Your task to perform on an android device: Add "alienware area 51" to the cart on ebay.com Image 0: 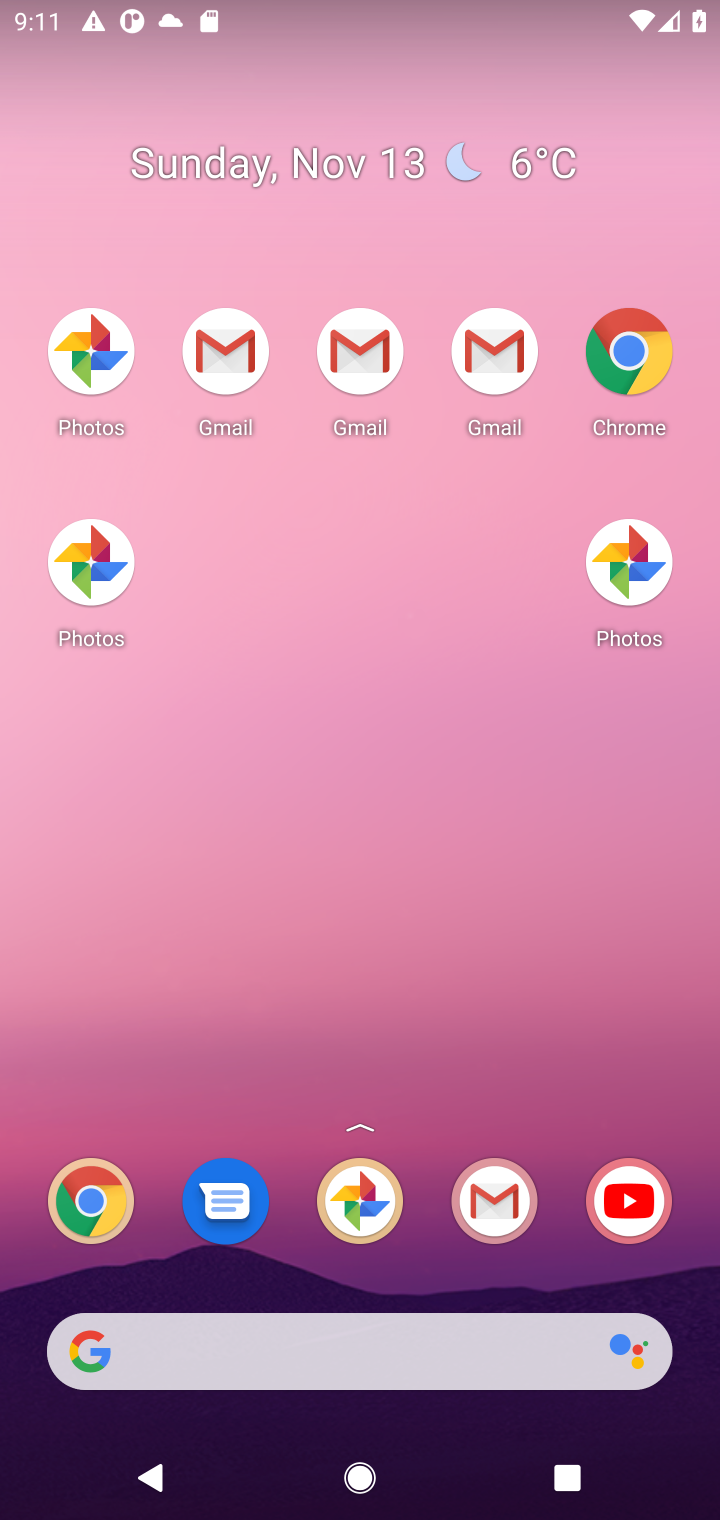
Step 0: drag from (435, 1275) to (396, 190)
Your task to perform on an android device: Add "alienware area 51" to the cart on ebay.com Image 1: 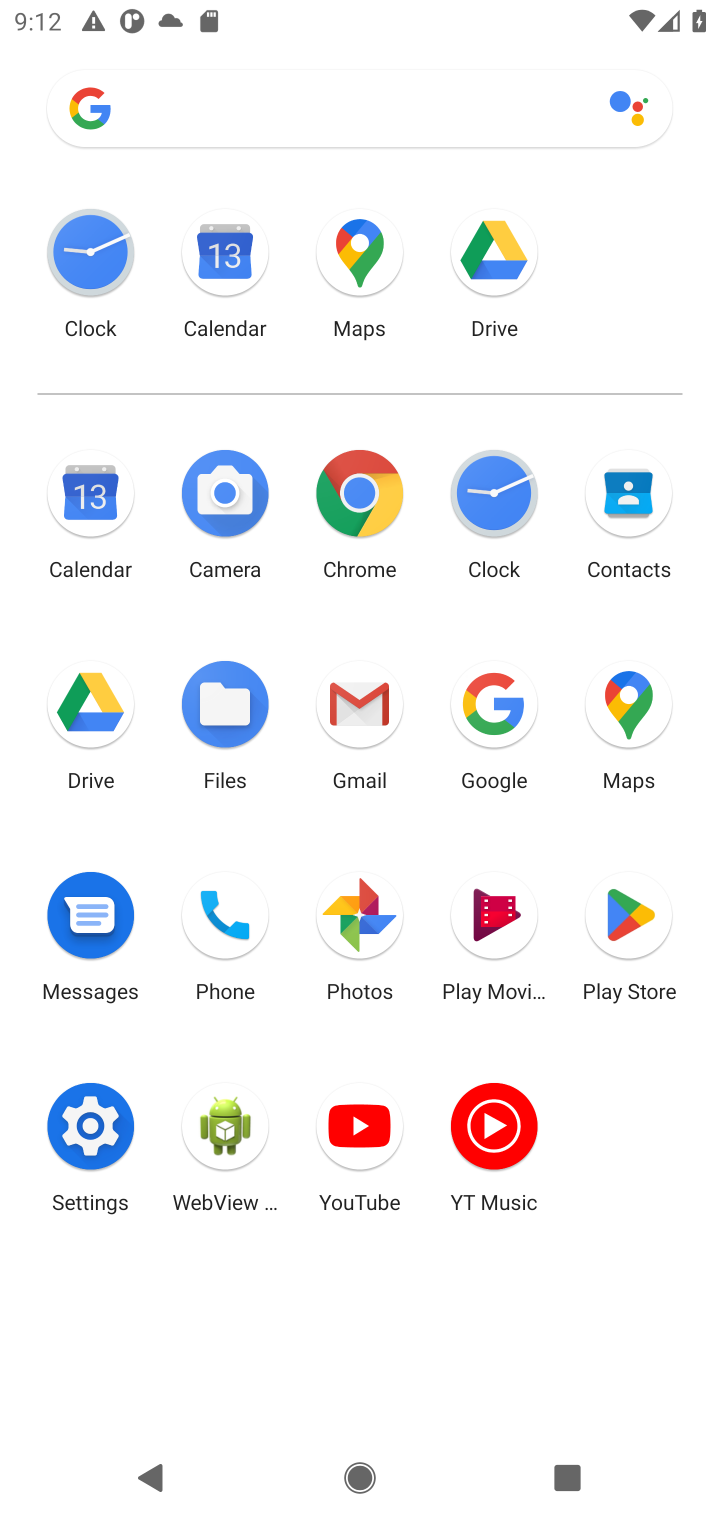
Step 1: click (350, 495)
Your task to perform on an android device: Add "alienware area 51" to the cart on ebay.com Image 2: 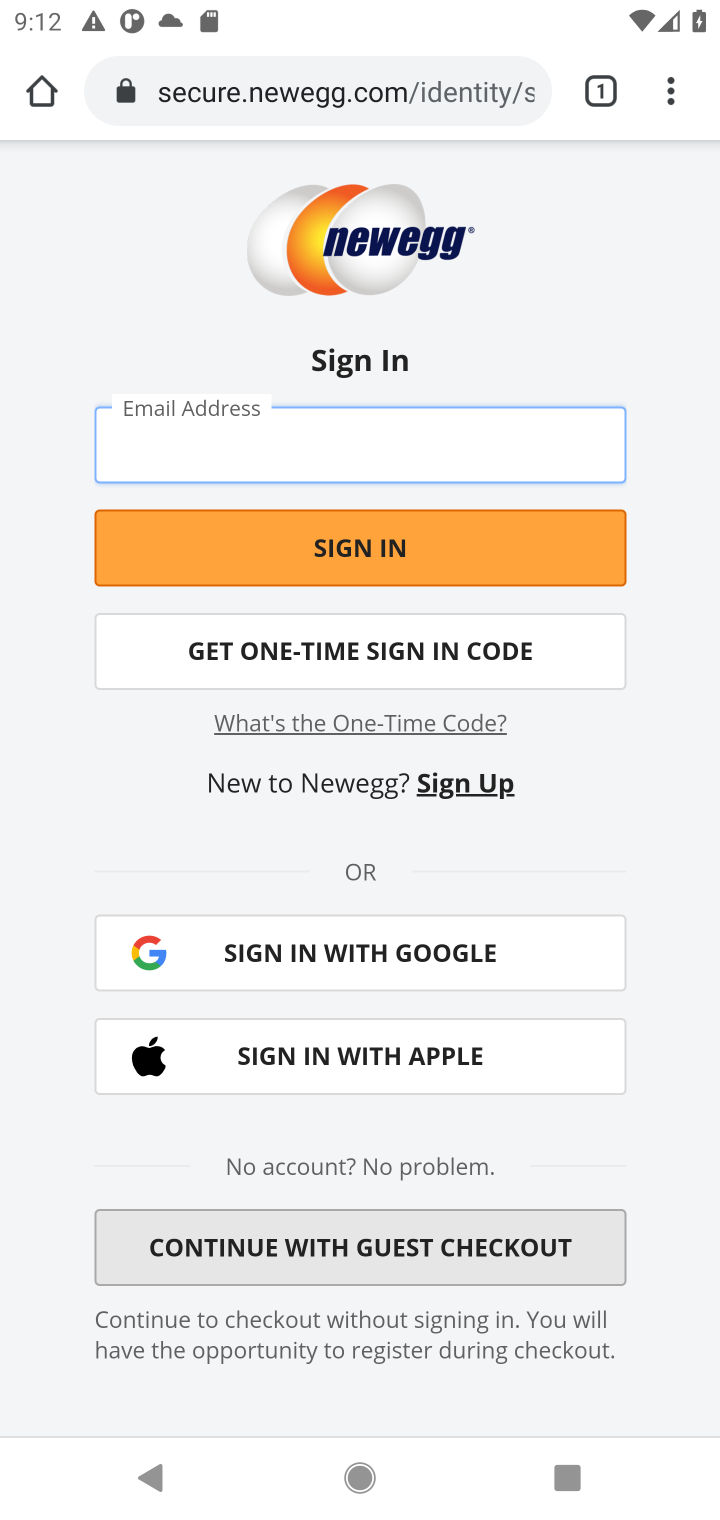
Step 2: click (507, 92)
Your task to perform on an android device: Add "alienware area 51" to the cart on ebay.com Image 3: 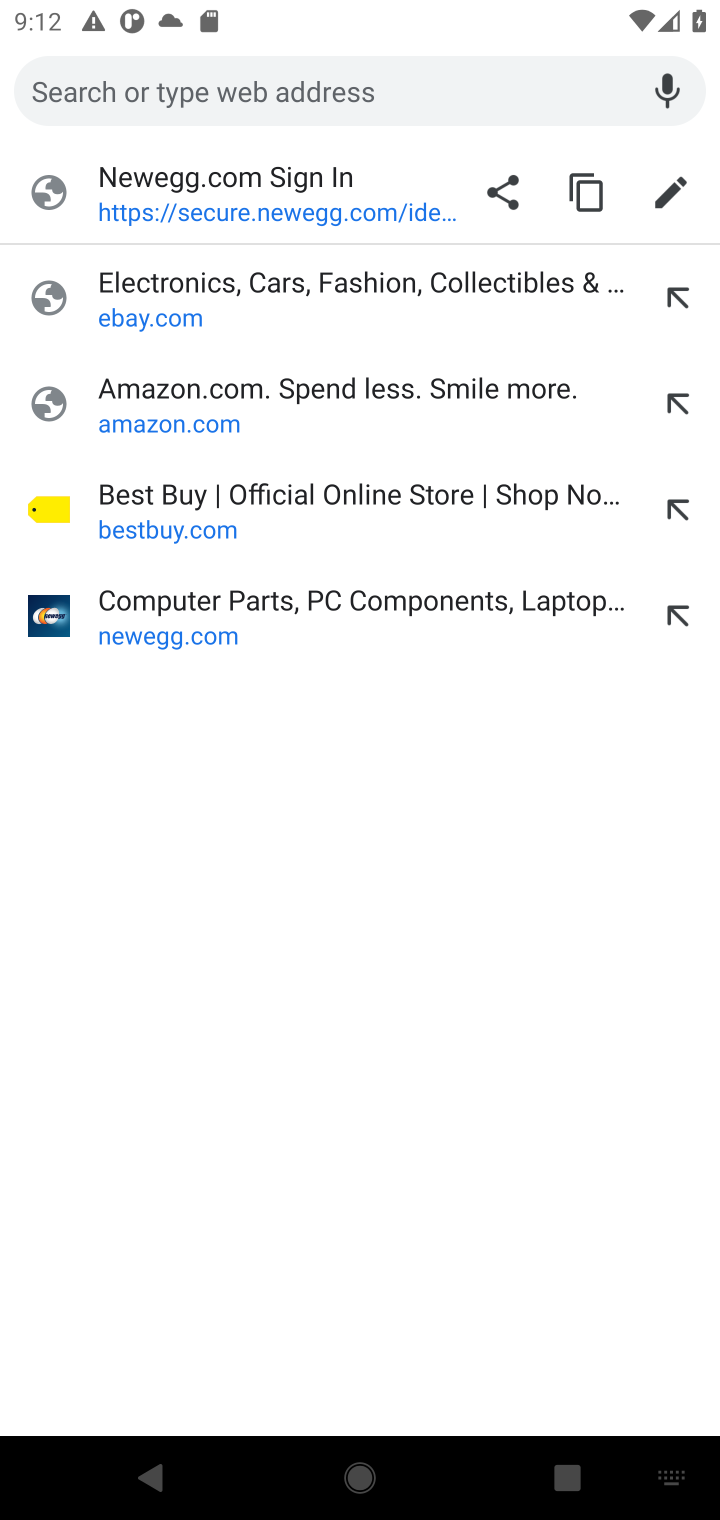
Step 3: type "ebay.com"
Your task to perform on an android device: Add "alienware area 51" to the cart on ebay.com Image 4: 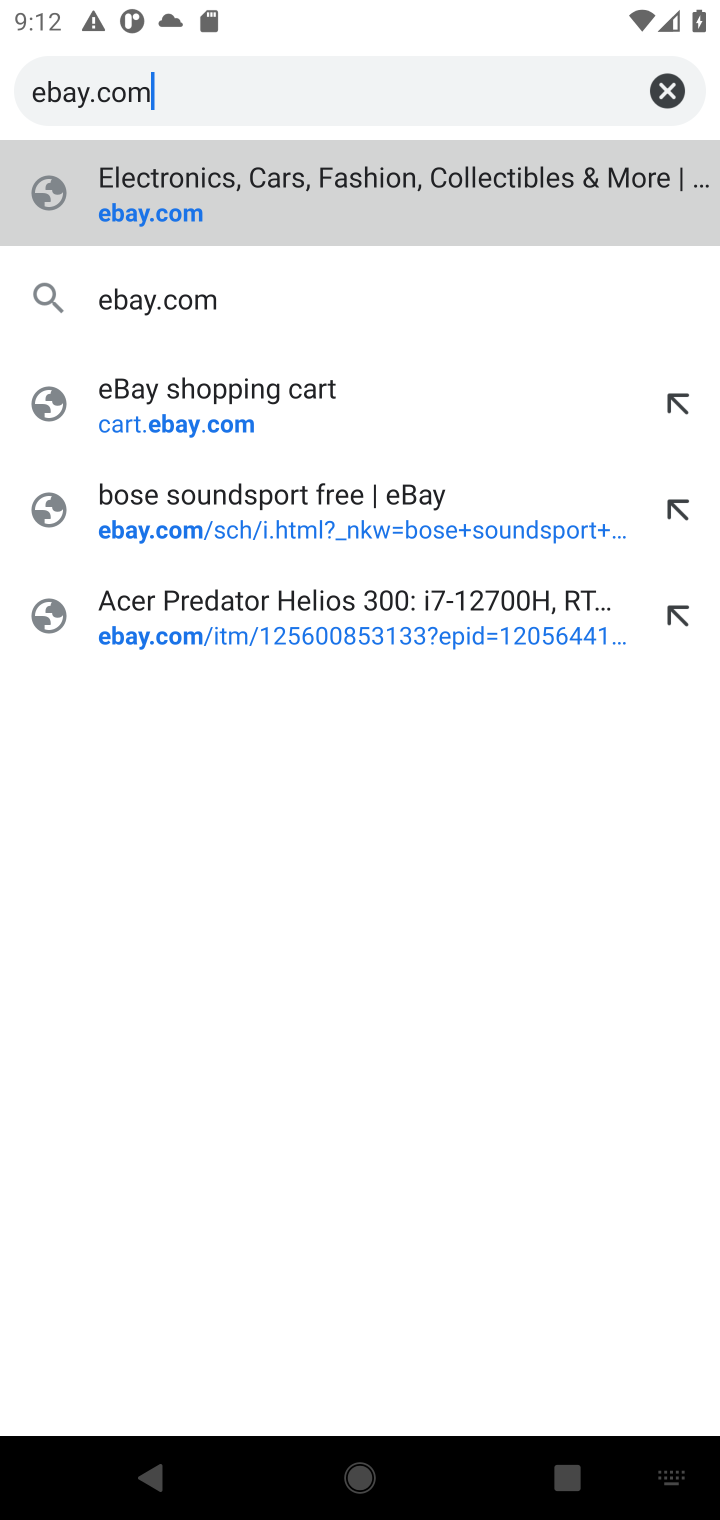
Step 4: press enter
Your task to perform on an android device: Add "alienware area 51" to the cart on ebay.com Image 5: 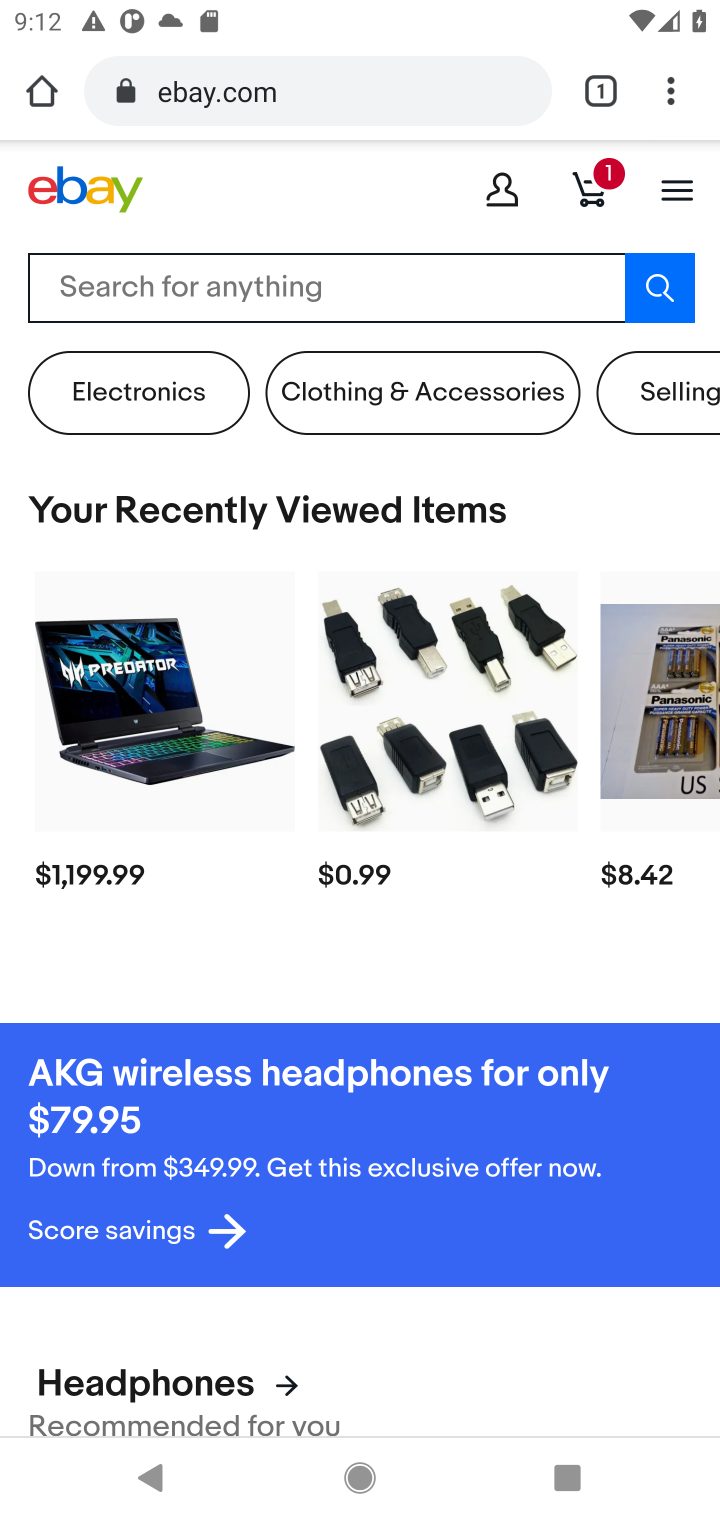
Step 5: click (401, 289)
Your task to perform on an android device: Add "alienware area 51" to the cart on ebay.com Image 6: 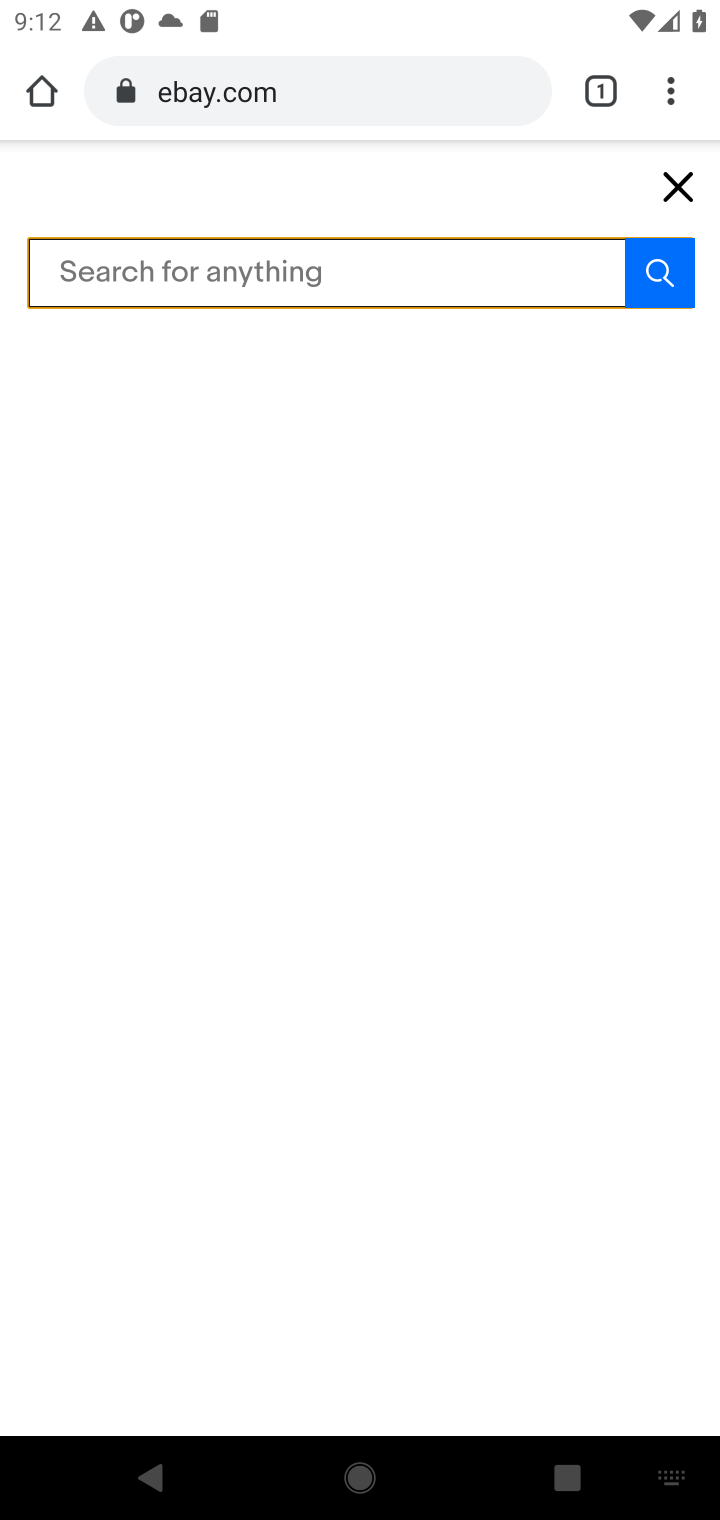
Step 6: type "alienware area 52"
Your task to perform on an android device: Add "alienware area 51" to the cart on ebay.com Image 7: 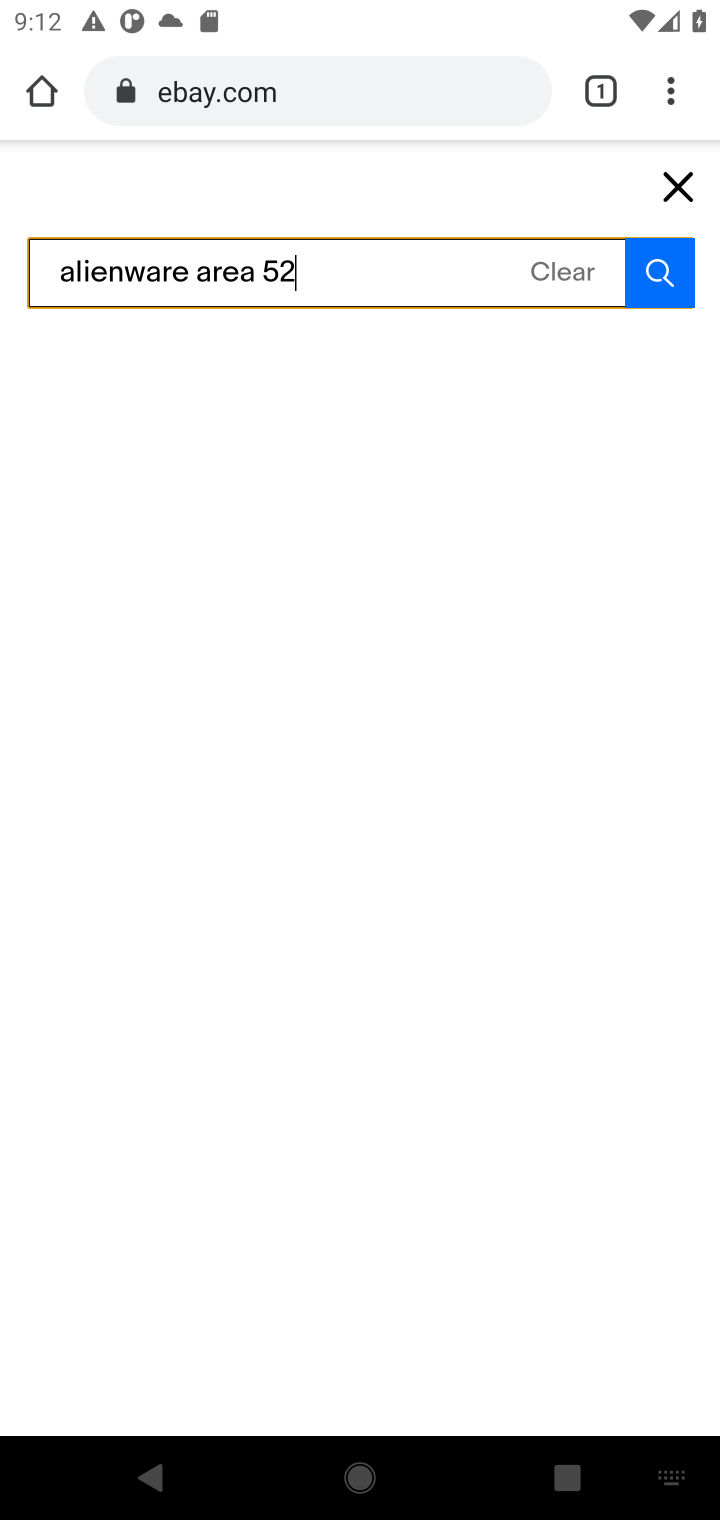
Step 7: click (575, 265)
Your task to perform on an android device: Add "alienware area 51" to the cart on ebay.com Image 8: 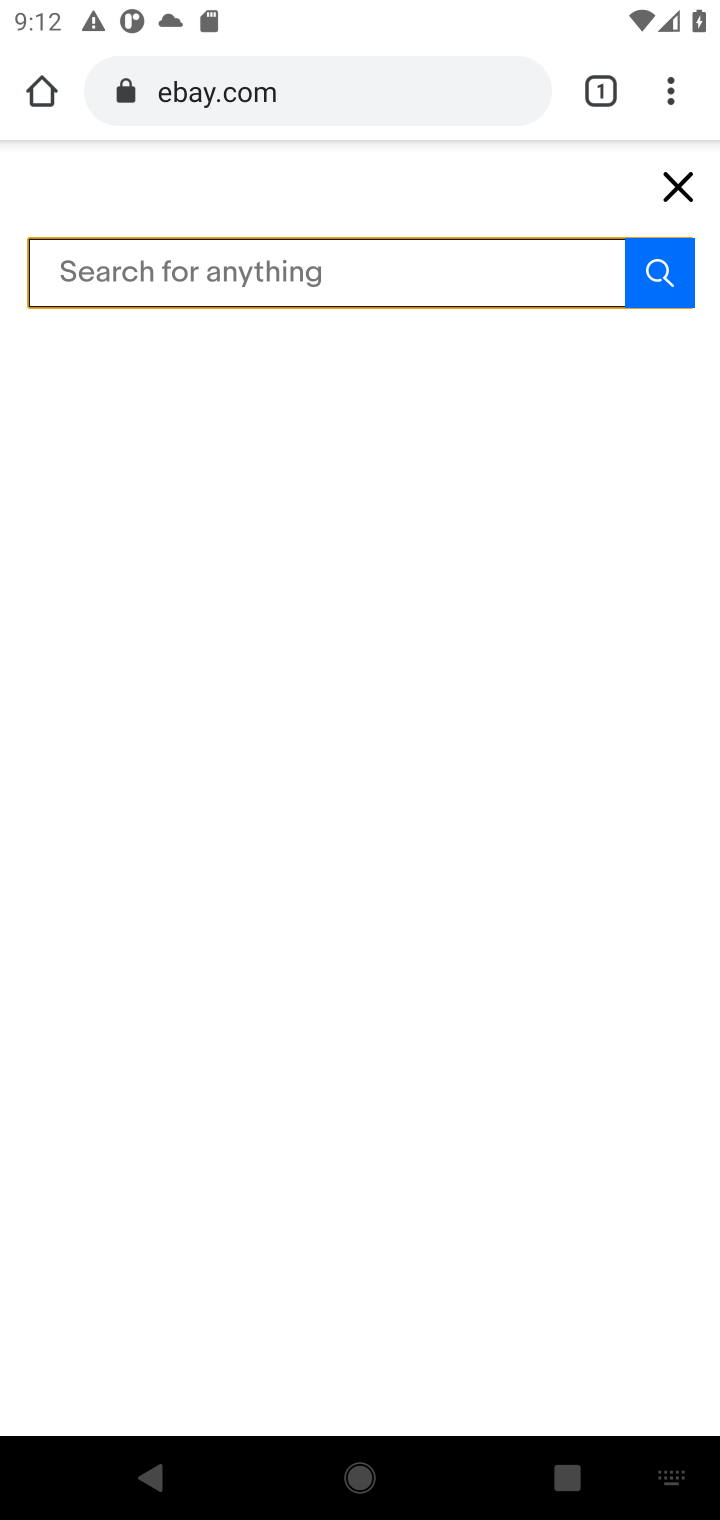
Step 8: type "alienware area 51"
Your task to perform on an android device: Add "alienware area 51" to the cart on ebay.com Image 9: 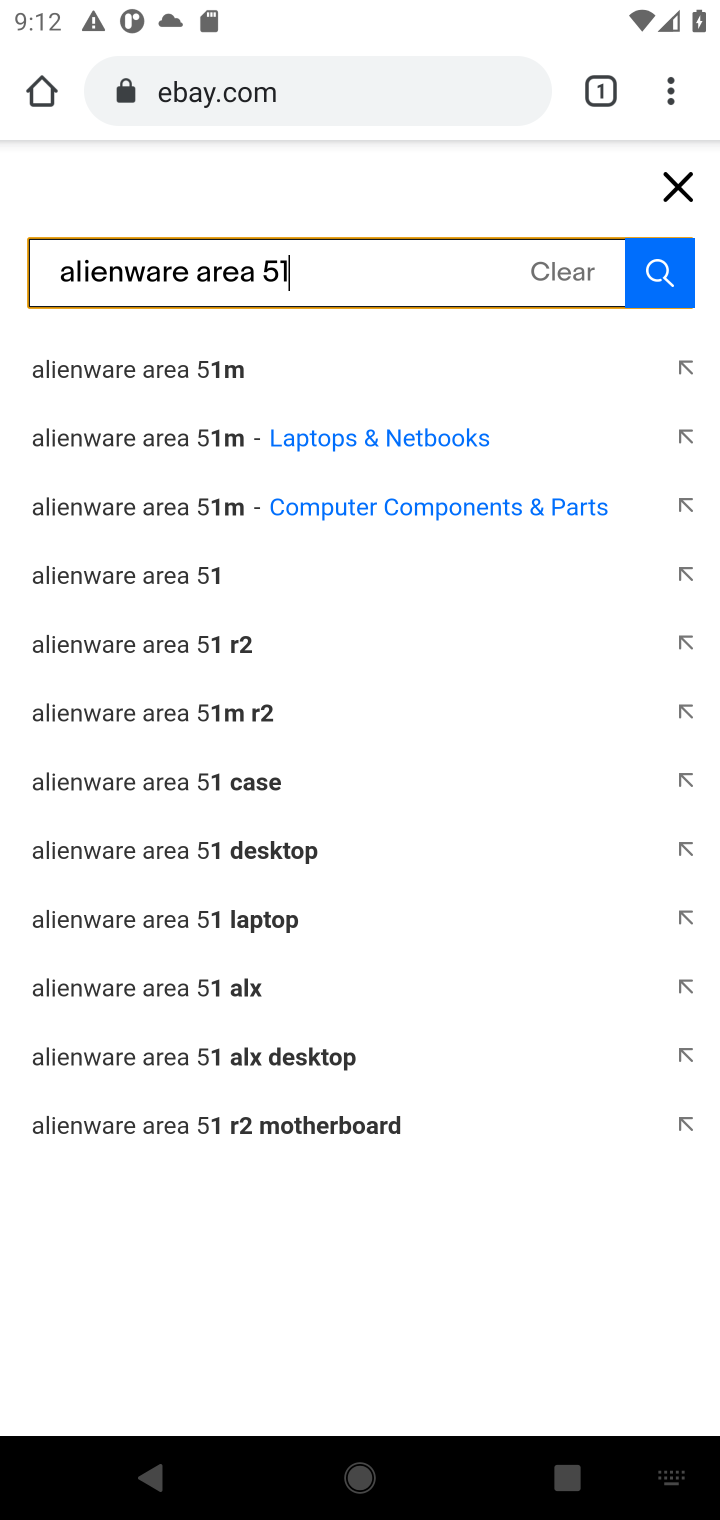
Step 9: press enter
Your task to perform on an android device: Add "alienware area 51" to the cart on ebay.com Image 10: 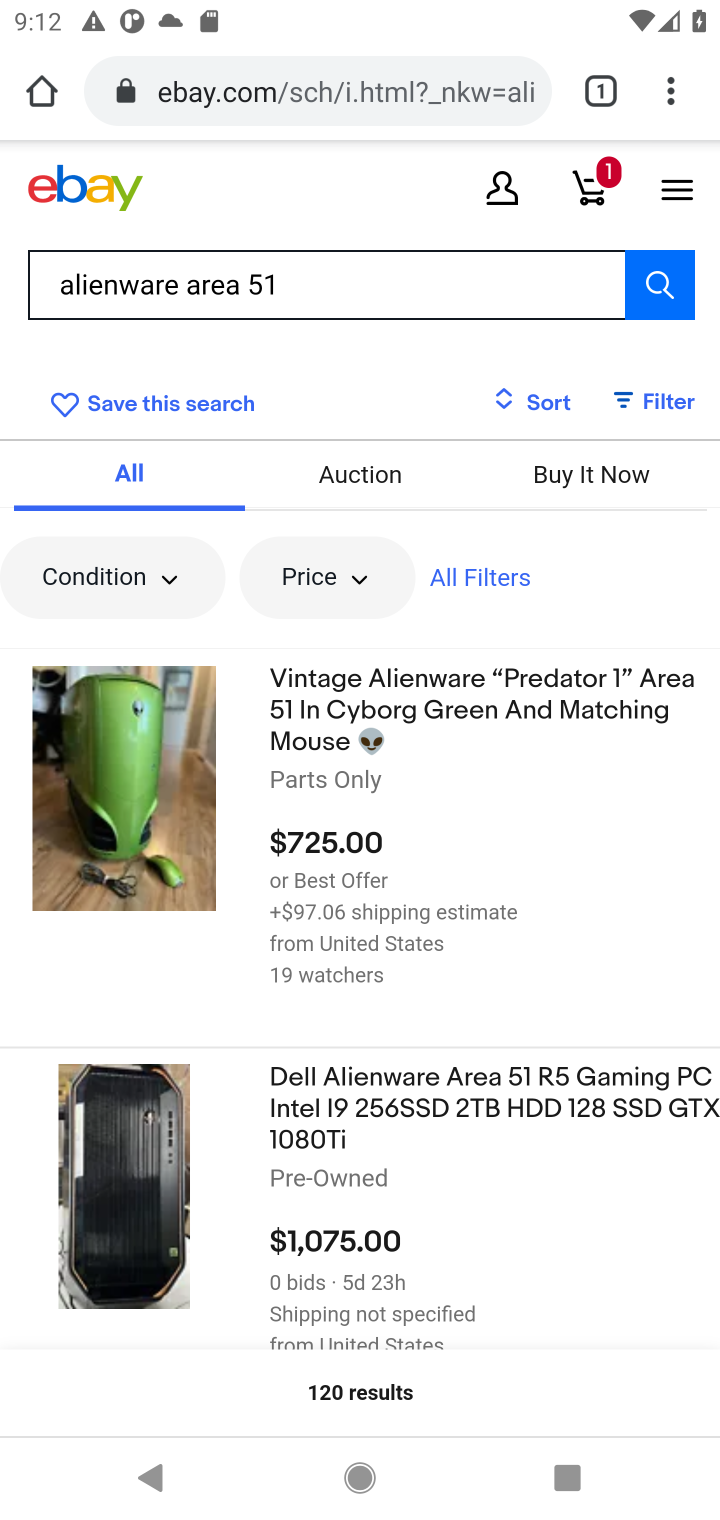
Step 10: click (105, 813)
Your task to perform on an android device: Add "alienware area 51" to the cart on ebay.com Image 11: 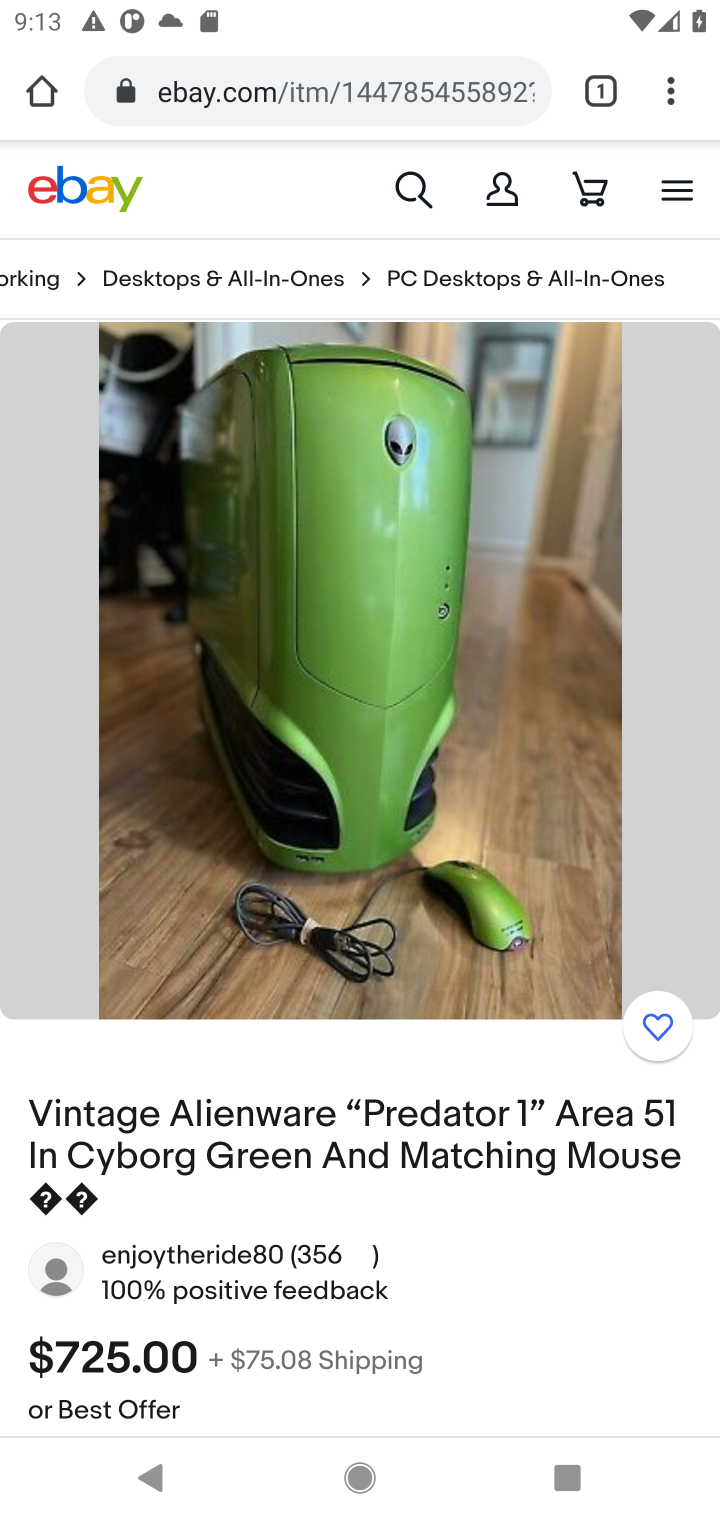
Step 11: drag from (374, 1124) to (439, 342)
Your task to perform on an android device: Add "alienware area 51" to the cart on ebay.com Image 12: 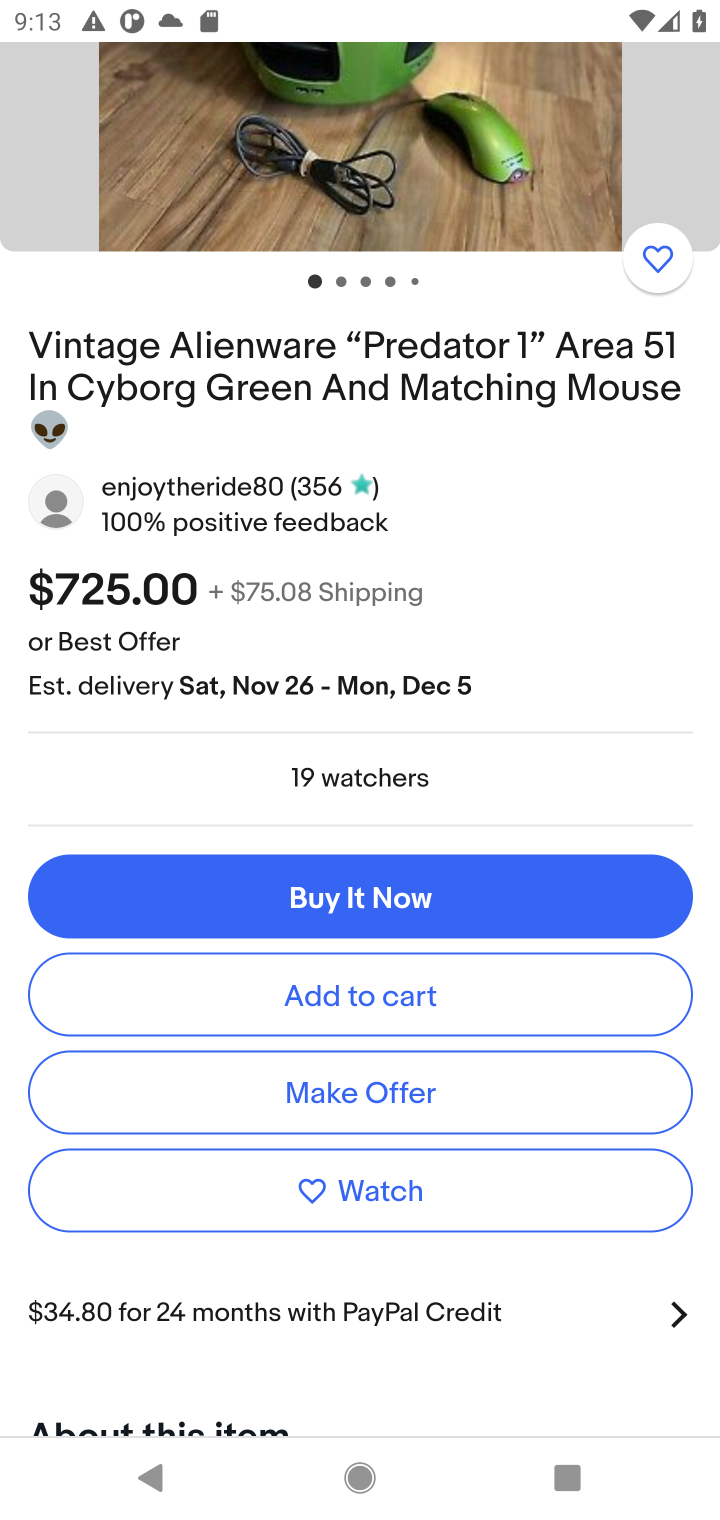
Step 12: click (480, 994)
Your task to perform on an android device: Add "alienware area 51" to the cart on ebay.com Image 13: 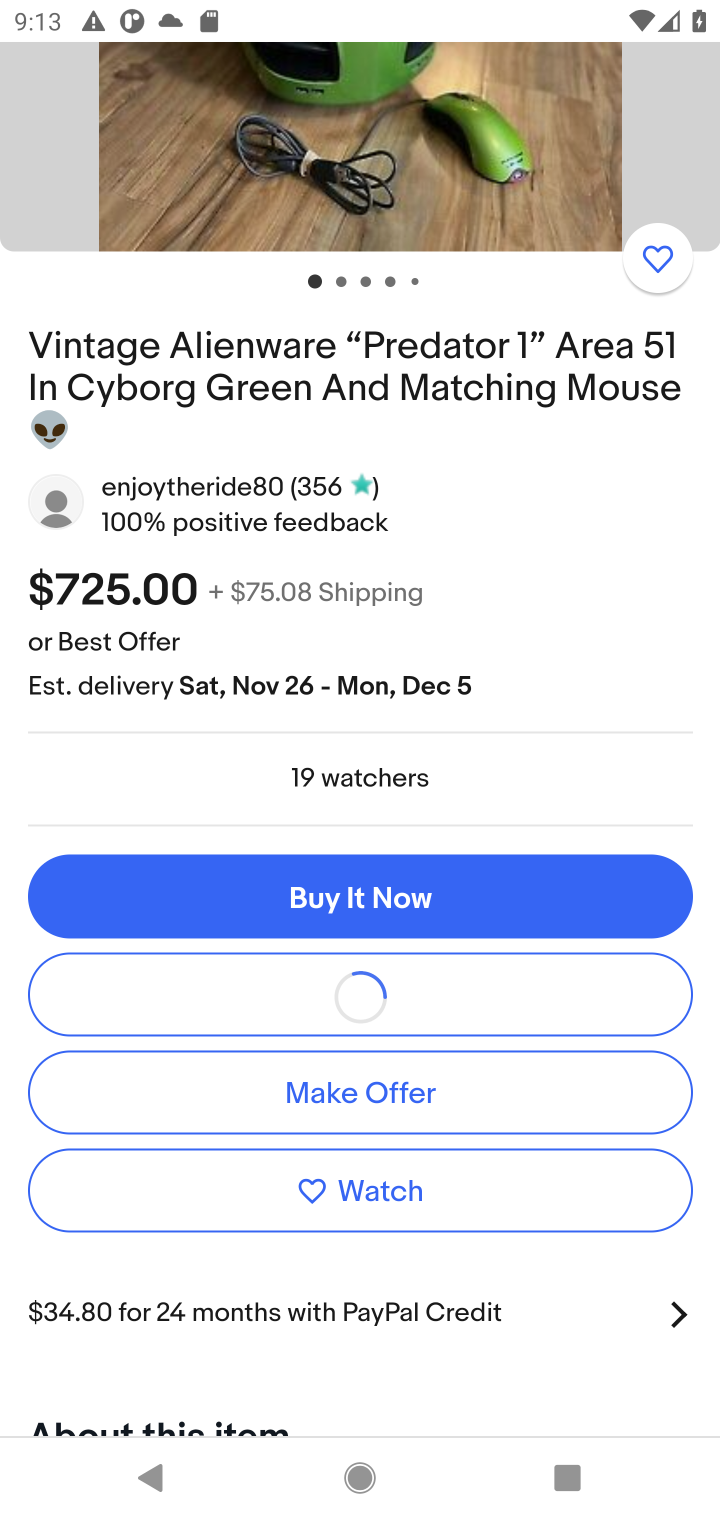
Step 13: task complete